Your task to perform on an android device: What is the recent news? Image 0: 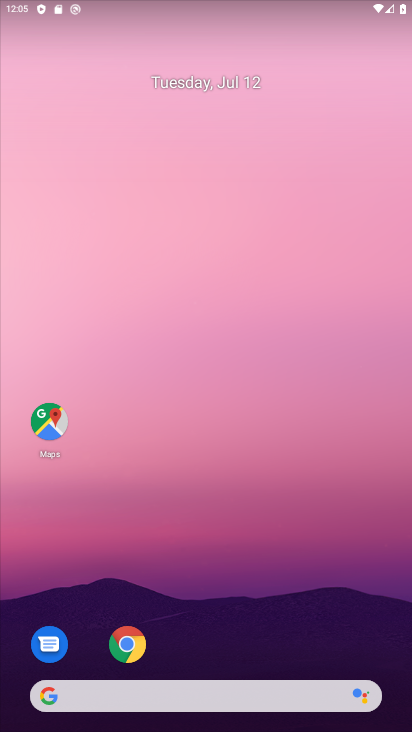
Step 0: drag from (59, 636) to (234, 28)
Your task to perform on an android device: What is the recent news? Image 1: 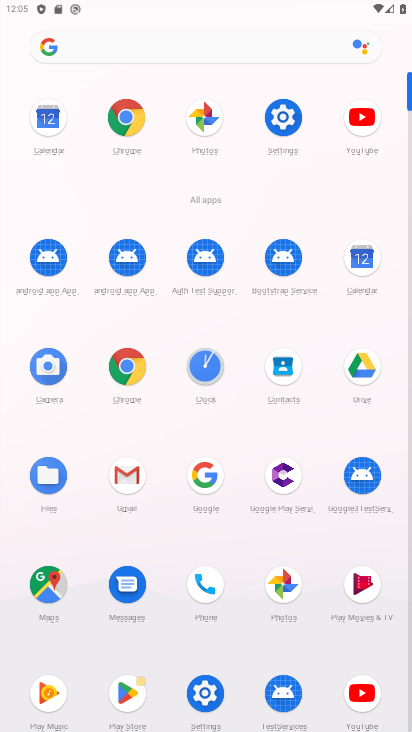
Step 1: click (102, 38)
Your task to perform on an android device: What is the recent news? Image 2: 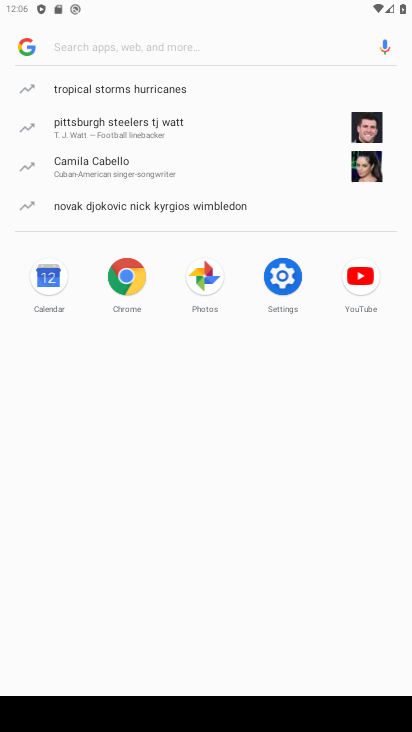
Step 2: type "What is the recent news?"
Your task to perform on an android device: What is the recent news? Image 3: 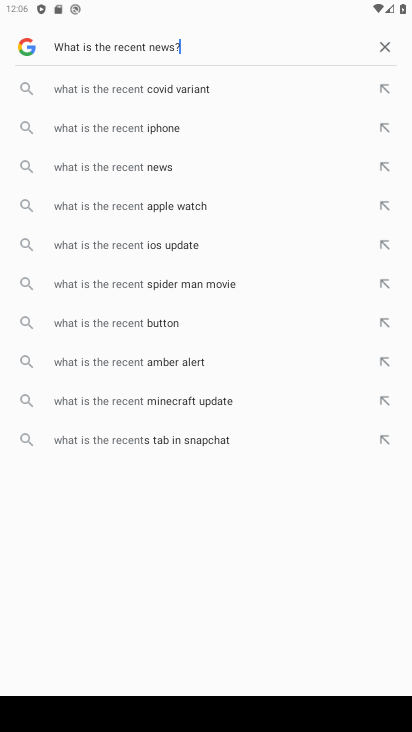
Step 3: type ""
Your task to perform on an android device: What is the recent news? Image 4: 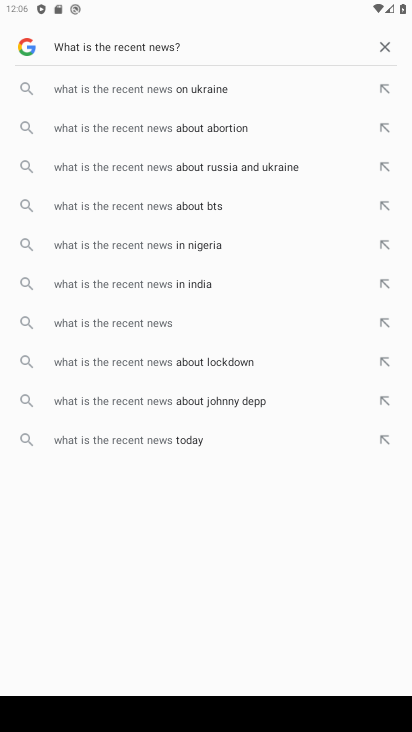
Step 4: click (269, 49)
Your task to perform on an android device: What is the recent news? Image 5: 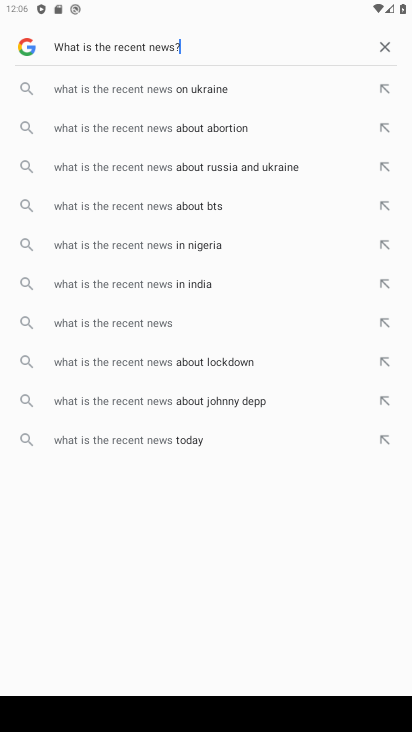
Step 5: task complete